Your task to perform on an android device: Empty the shopping cart on bestbuy. Search for "asus zenbook" on bestbuy, select the first entry, add it to the cart, then select checkout. Image 0: 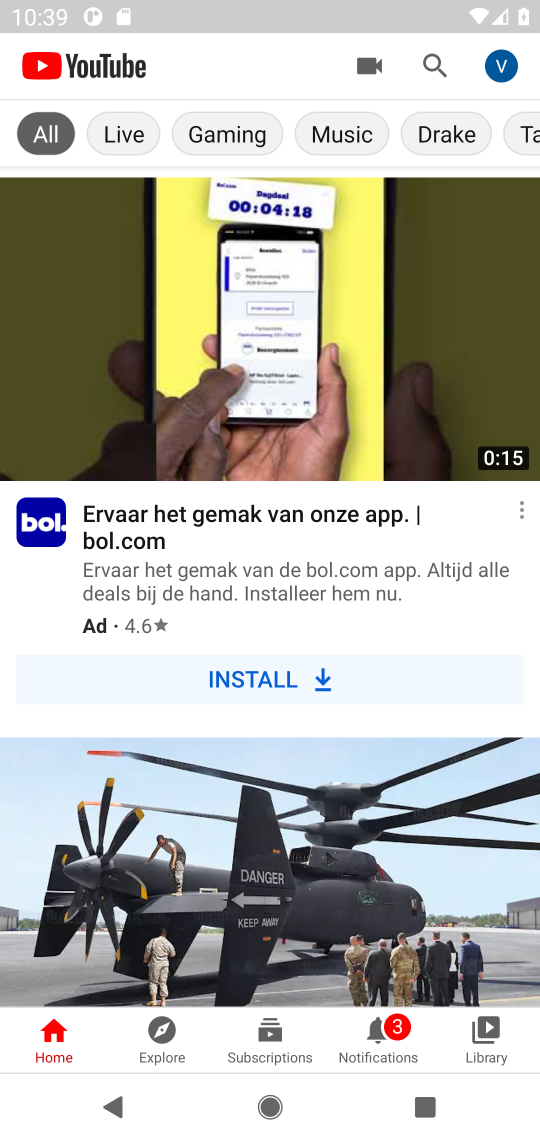
Step 0: press home button
Your task to perform on an android device: Empty the shopping cart on bestbuy. Search for "asus zenbook" on bestbuy, select the first entry, add it to the cart, then select checkout. Image 1: 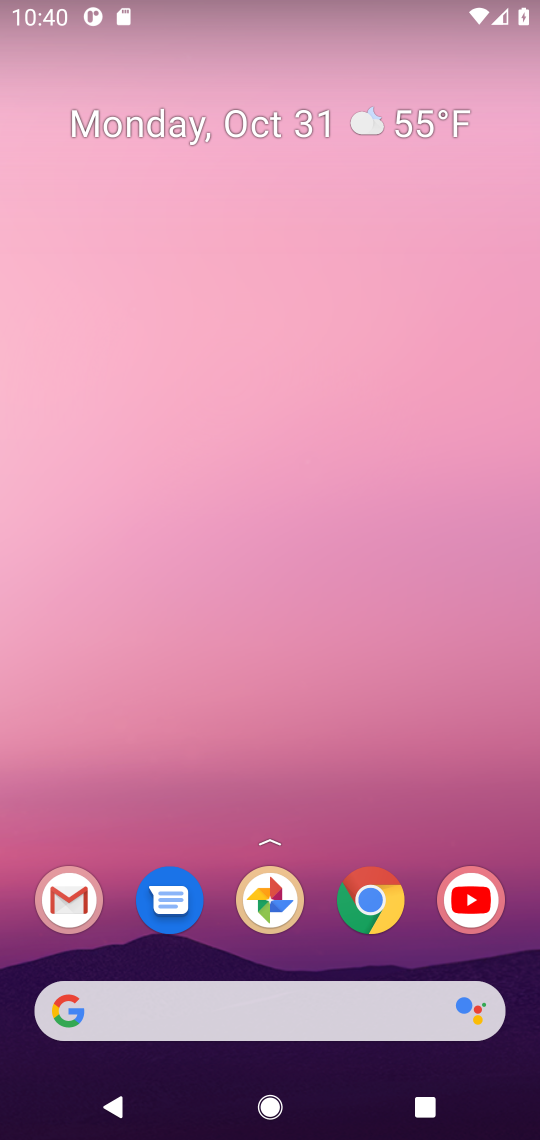
Step 1: click (365, 905)
Your task to perform on an android device: Empty the shopping cart on bestbuy. Search for "asus zenbook" on bestbuy, select the first entry, add it to the cart, then select checkout. Image 2: 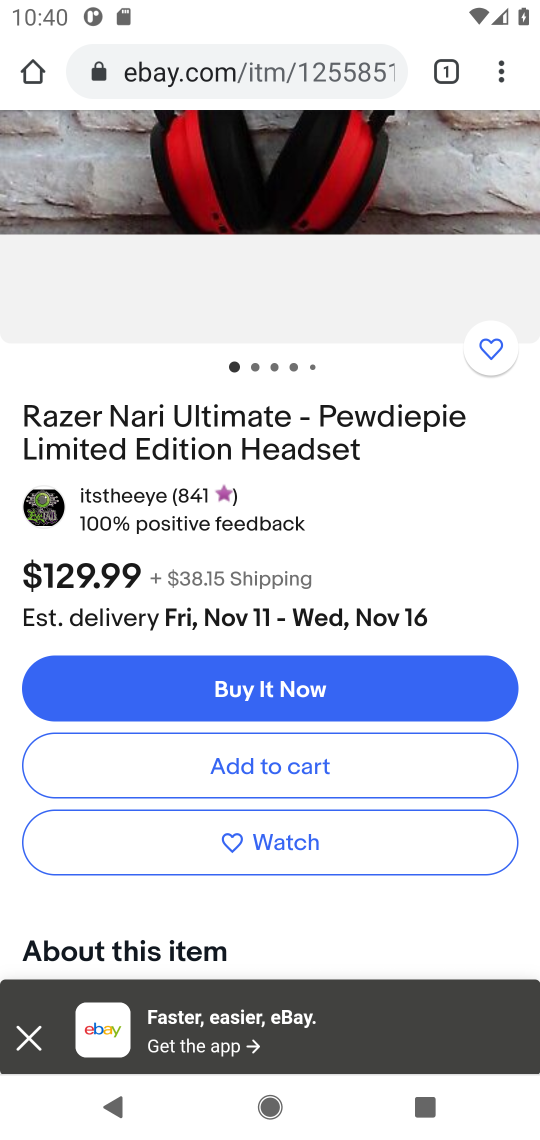
Step 2: click (227, 86)
Your task to perform on an android device: Empty the shopping cart on bestbuy. Search for "asus zenbook" on bestbuy, select the first entry, add it to the cart, then select checkout. Image 3: 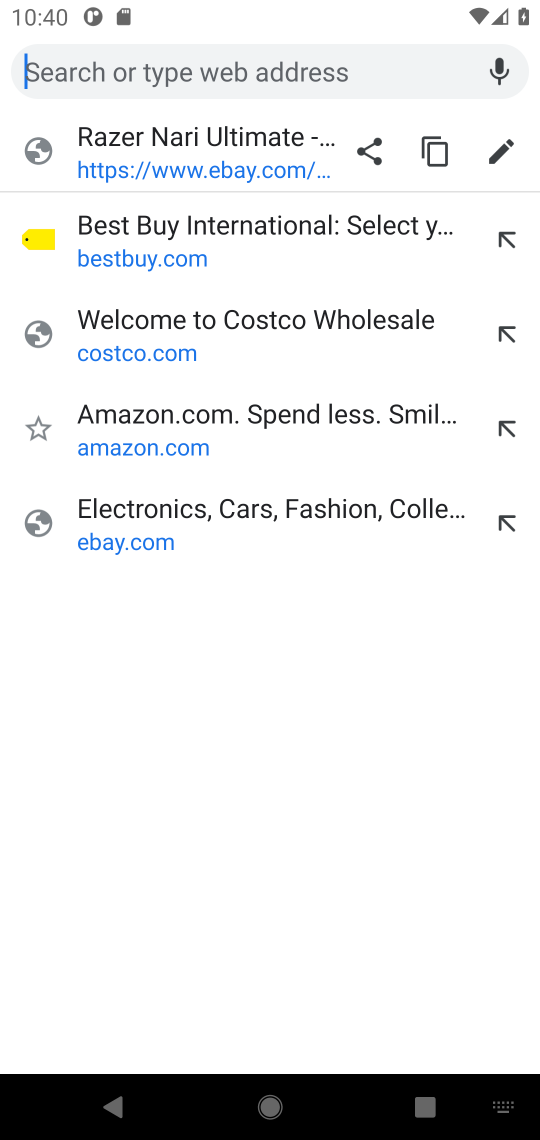
Step 3: click (86, 258)
Your task to perform on an android device: Empty the shopping cart on bestbuy. Search for "asus zenbook" on bestbuy, select the first entry, add it to the cart, then select checkout. Image 4: 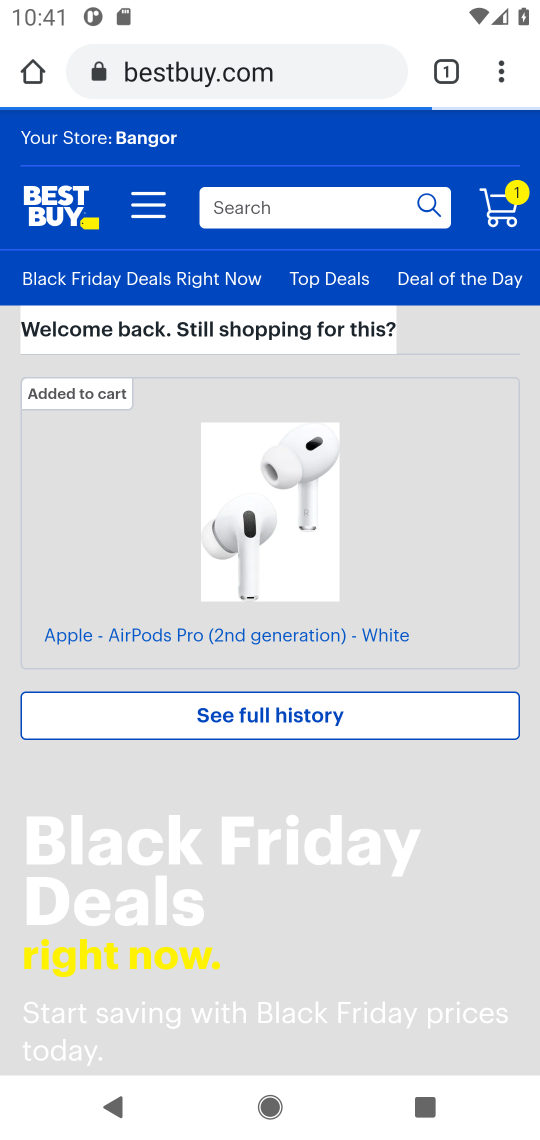
Step 4: click (495, 205)
Your task to perform on an android device: Empty the shopping cart on bestbuy. Search for "asus zenbook" on bestbuy, select the first entry, add it to the cart, then select checkout. Image 5: 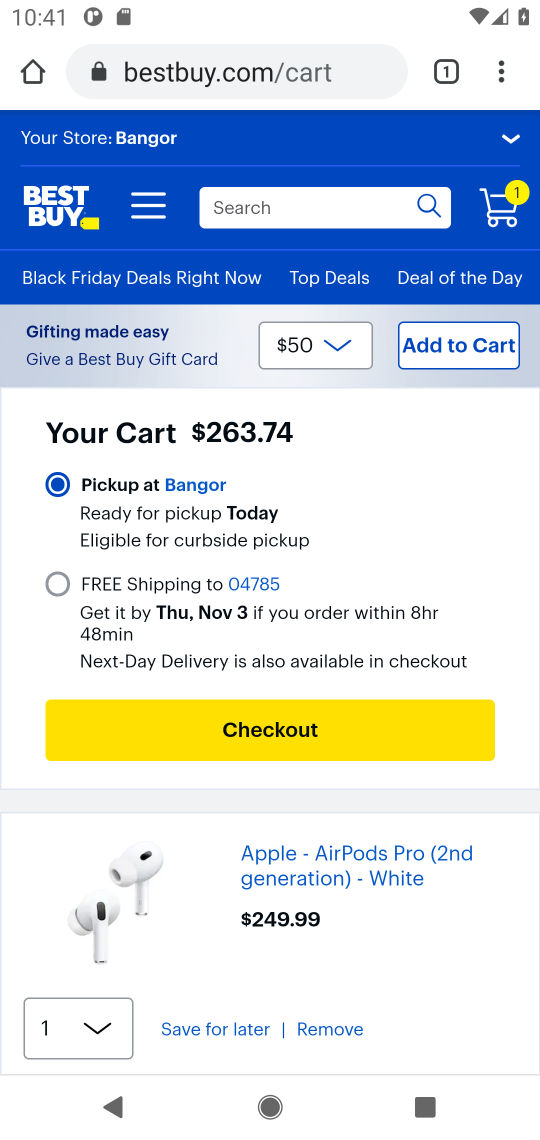
Step 5: drag from (231, 656) to (284, 436)
Your task to perform on an android device: Empty the shopping cart on bestbuy. Search for "asus zenbook" on bestbuy, select the first entry, add it to the cart, then select checkout. Image 6: 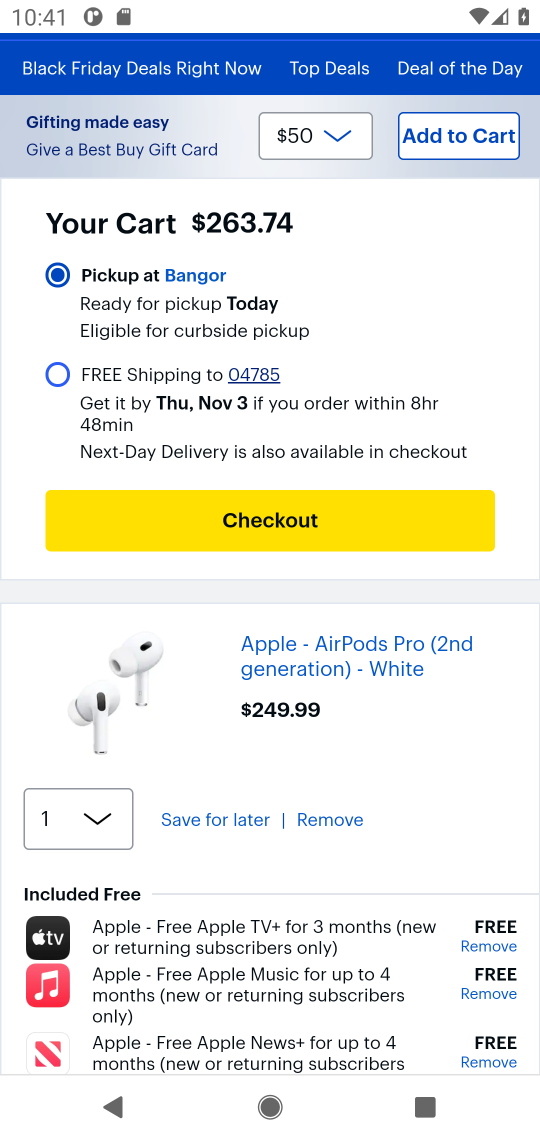
Step 6: click (317, 818)
Your task to perform on an android device: Empty the shopping cart on bestbuy. Search for "asus zenbook" on bestbuy, select the first entry, add it to the cart, then select checkout. Image 7: 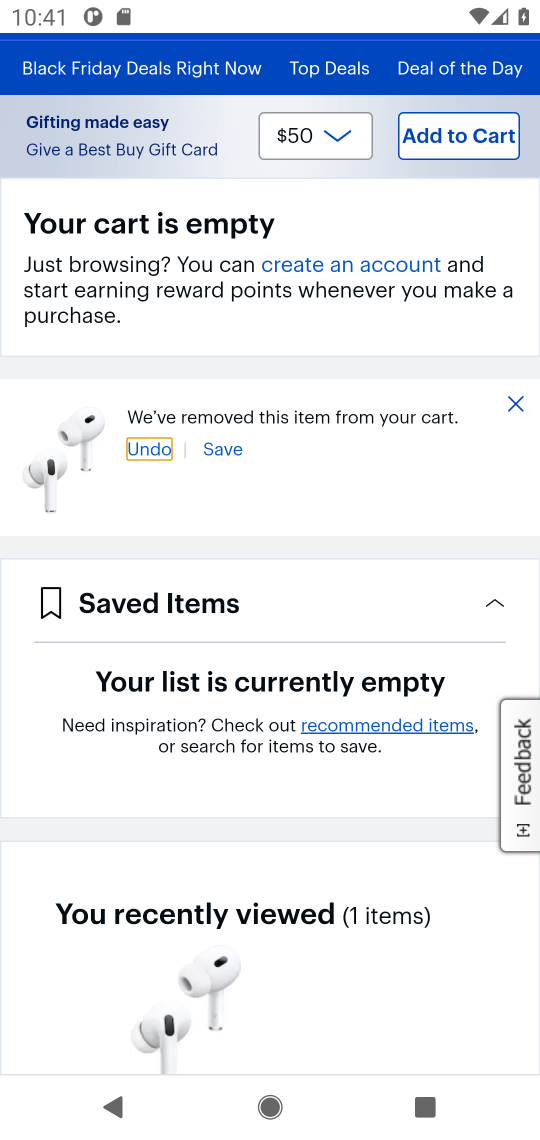
Step 7: drag from (308, 230) to (318, 812)
Your task to perform on an android device: Empty the shopping cart on bestbuy. Search for "asus zenbook" on bestbuy, select the first entry, add it to the cart, then select checkout. Image 8: 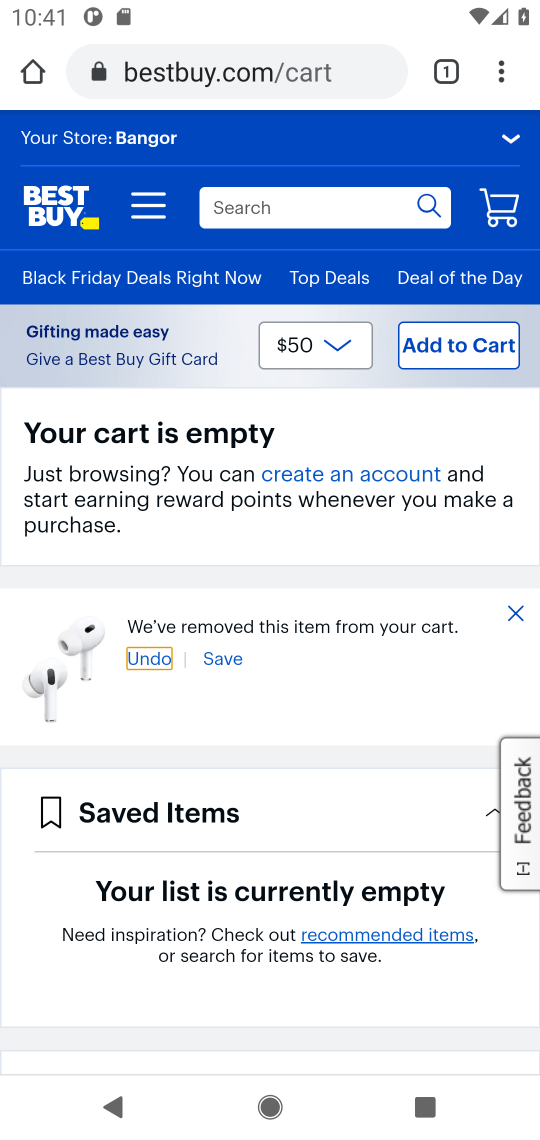
Step 8: click (287, 203)
Your task to perform on an android device: Empty the shopping cart on bestbuy. Search for "asus zenbook" on bestbuy, select the first entry, add it to the cart, then select checkout. Image 9: 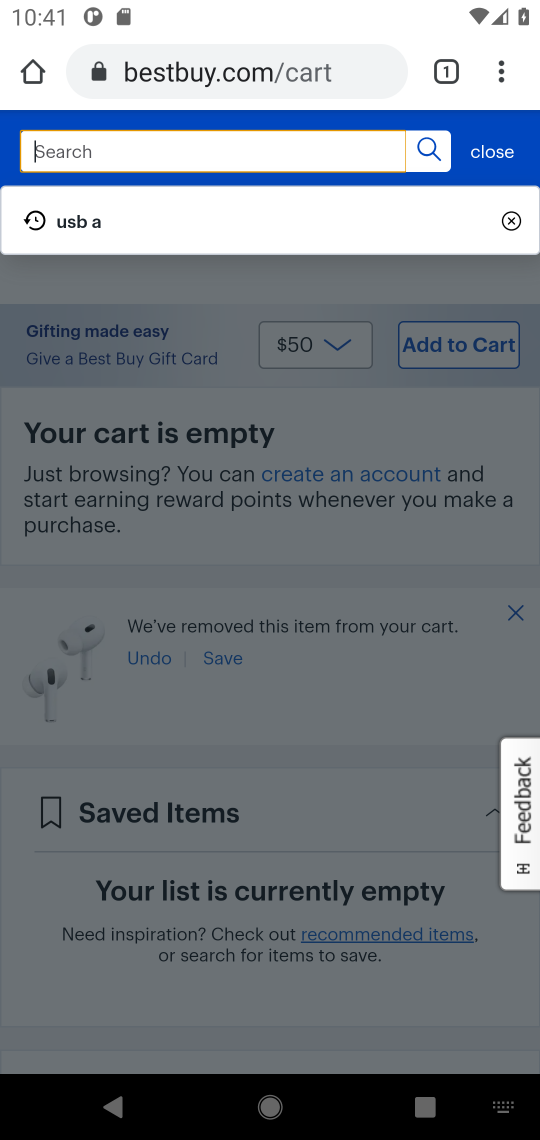
Step 9: type "asus zenbook"
Your task to perform on an android device: Empty the shopping cart on bestbuy. Search for "asus zenbook" on bestbuy, select the first entry, add it to the cart, then select checkout. Image 10: 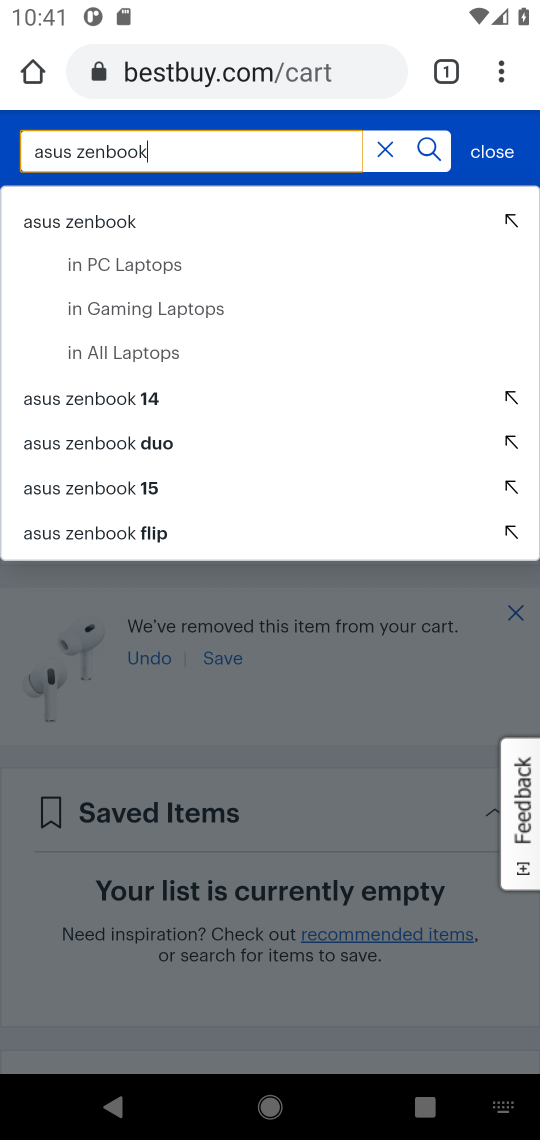
Step 10: click (68, 226)
Your task to perform on an android device: Empty the shopping cart on bestbuy. Search for "asus zenbook" on bestbuy, select the first entry, add it to the cart, then select checkout. Image 11: 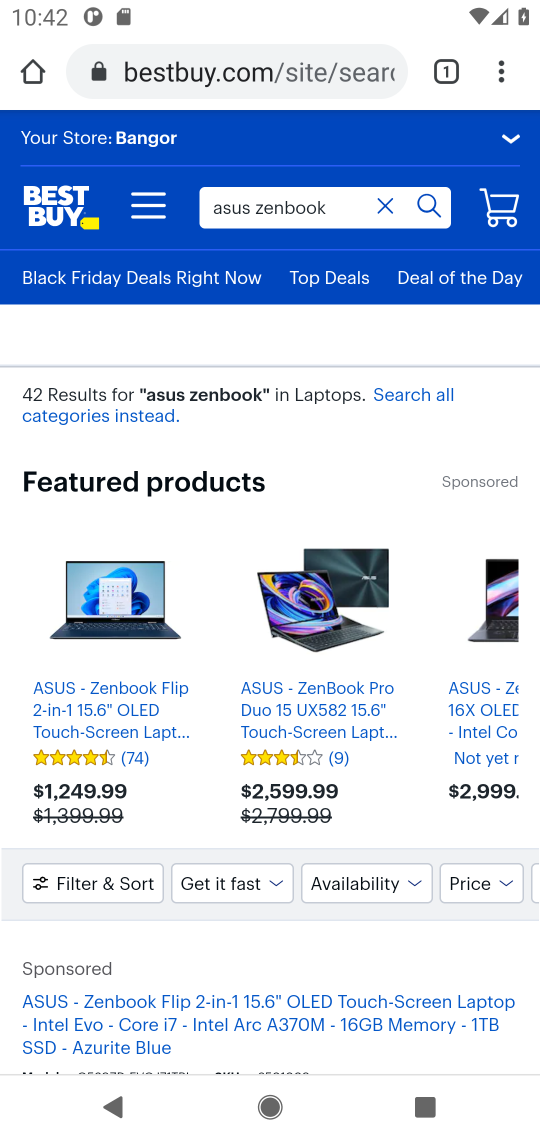
Step 11: click (118, 684)
Your task to perform on an android device: Empty the shopping cart on bestbuy. Search for "asus zenbook" on bestbuy, select the first entry, add it to the cart, then select checkout. Image 12: 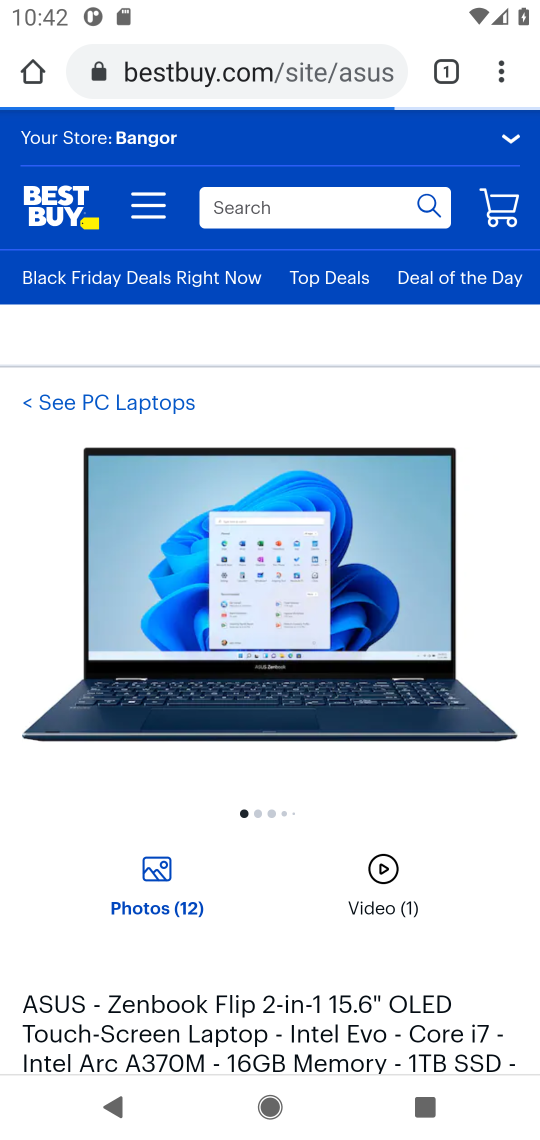
Step 12: drag from (231, 809) to (243, 409)
Your task to perform on an android device: Empty the shopping cart on bestbuy. Search for "asus zenbook" on bestbuy, select the first entry, add it to the cart, then select checkout. Image 13: 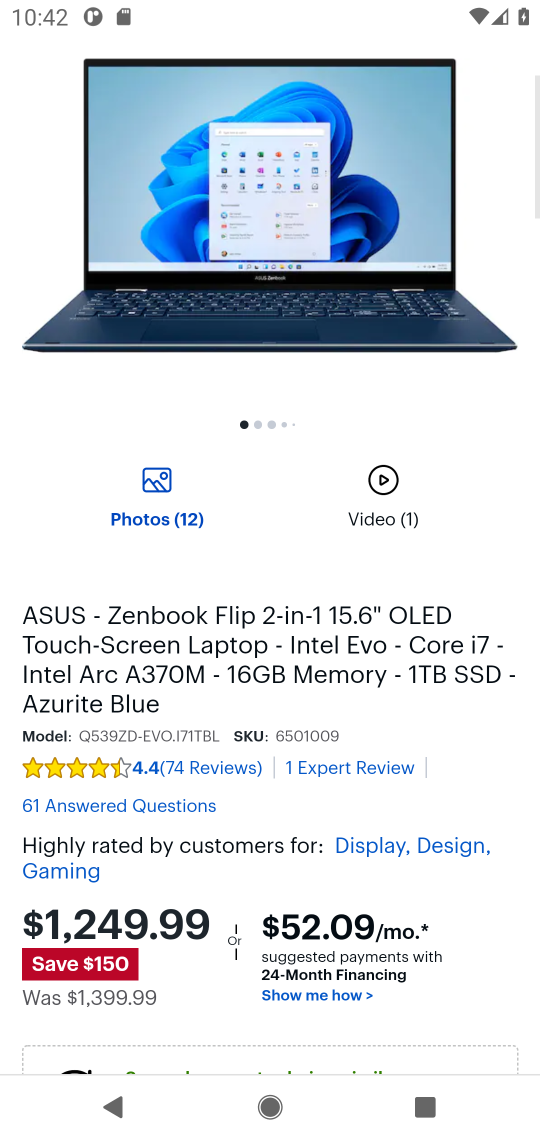
Step 13: drag from (199, 807) to (231, 354)
Your task to perform on an android device: Empty the shopping cart on bestbuy. Search for "asus zenbook" on bestbuy, select the first entry, add it to the cart, then select checkout. Image 14: 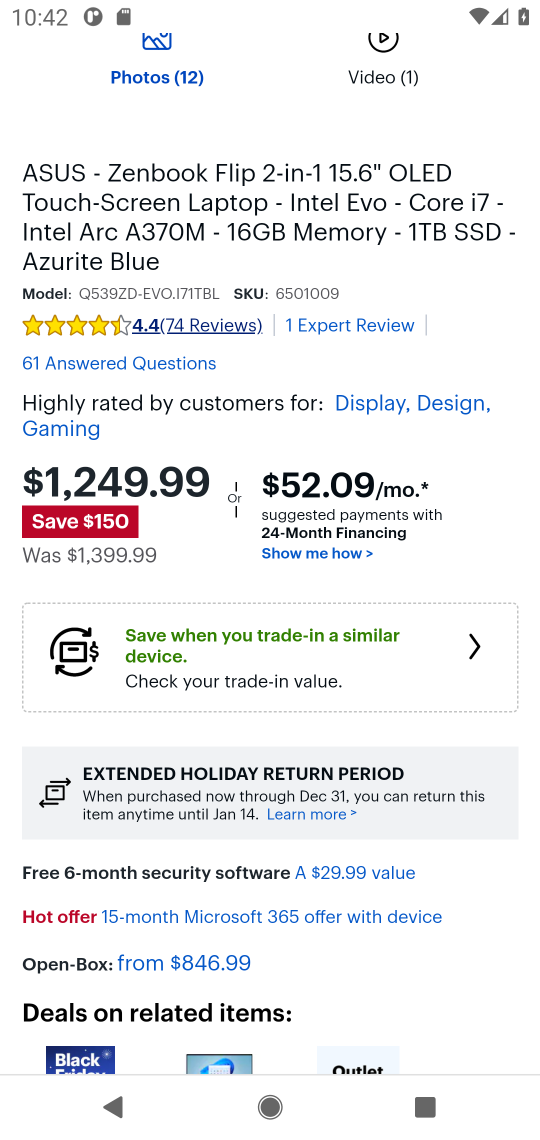
Step 14: drag from (197, 846) to (223, 387)
Your task to perform on an android device: Empty the shopping cart on bestbuy. Search for "asus zenbook" on bestbuy, select the first entry, add it to the cart, then select checkout. Image 15: 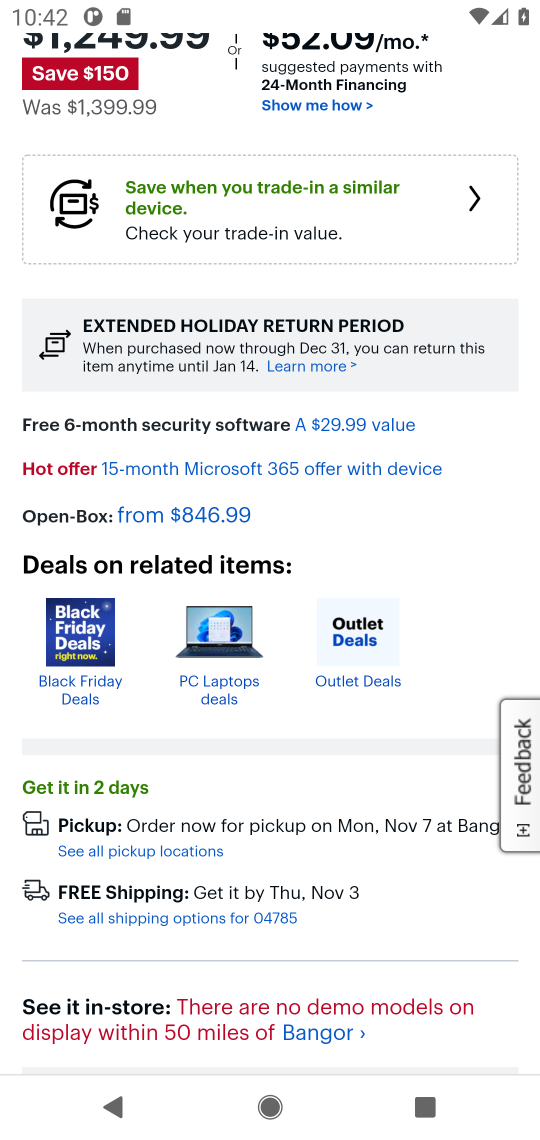
Step 15: drag from (223, 788) to (240, 407)
Your task to perform on an android device: Empty the shopping cart on bestbuy. Search for "asus zenbook" on bestbuy, select the first entry, add it to the cart, then select checkout. Image 16: 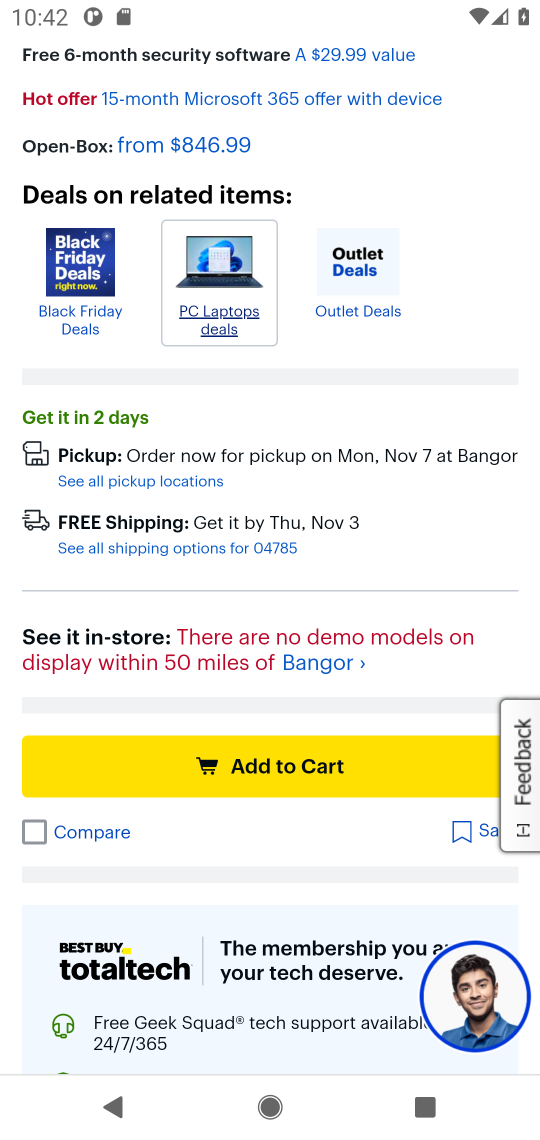
Step 16: click (245, 768)
Your task to perform on an android device: Empty the shopping cart on bestbuy. Search for "asus zenbook" on bestbuy, select the first entry, add it to the cart, then select checkout. Image 17: 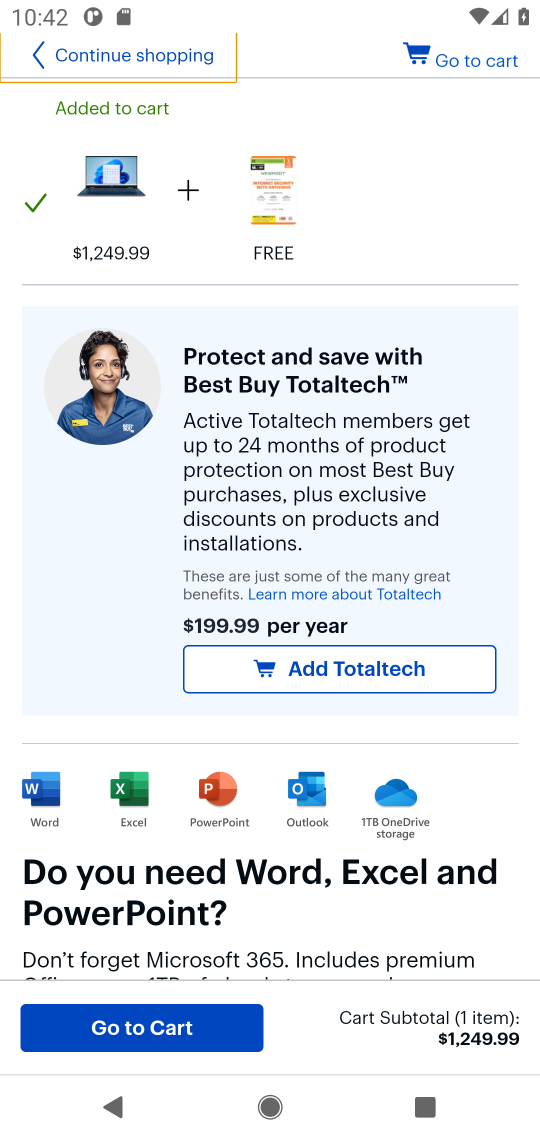
Step 17: click (474, 62)
Your task to perform on an android device: Empty the shopping cart on bestbuy. Search for "asus zenbook" on bestbuy, select the first entry, add it to the cart, then select checkout. Image 18: 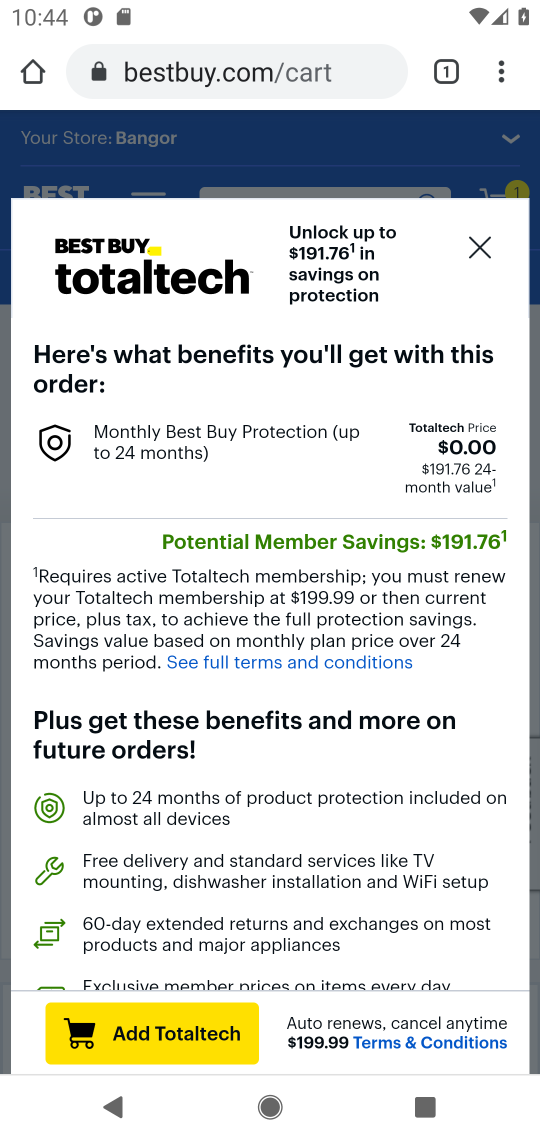
Step 18: drag from (237, 757) to (239, 388)
Your task to perform on an android device: Empty the shopping cart on bestbuy. Search for "asus zenbook" on bestbuy, select the first entry, add it to the cart, then select checkout. Image 19: 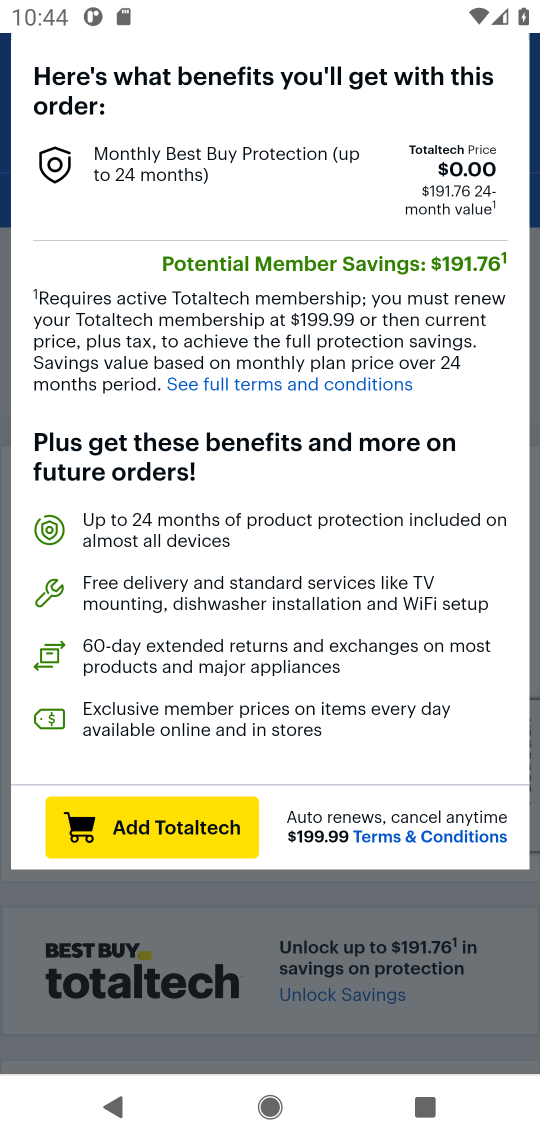
Step 19: drag from (234, 856) to (260, 421)
Your task to perform on an android device: Empty the shopping cart on bestbuy. Search for "asus zenbook" on bestbuy, select the first entry, add it to the cart, then select checkout. Image 20: 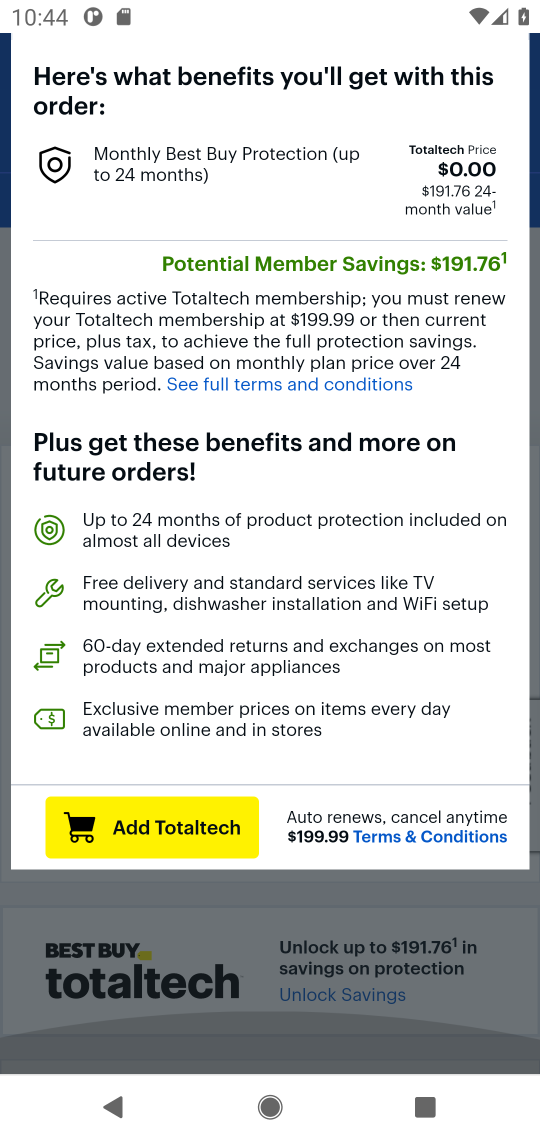
Step 20: drag from (253, 305) to (292, 1057)
Your task to perform on an android device: Empty the shopping cart on bestbuy. Search for "asus zenbook" on bestbuy, select the first entry, add it to the cart, then select checkout. Image 21: 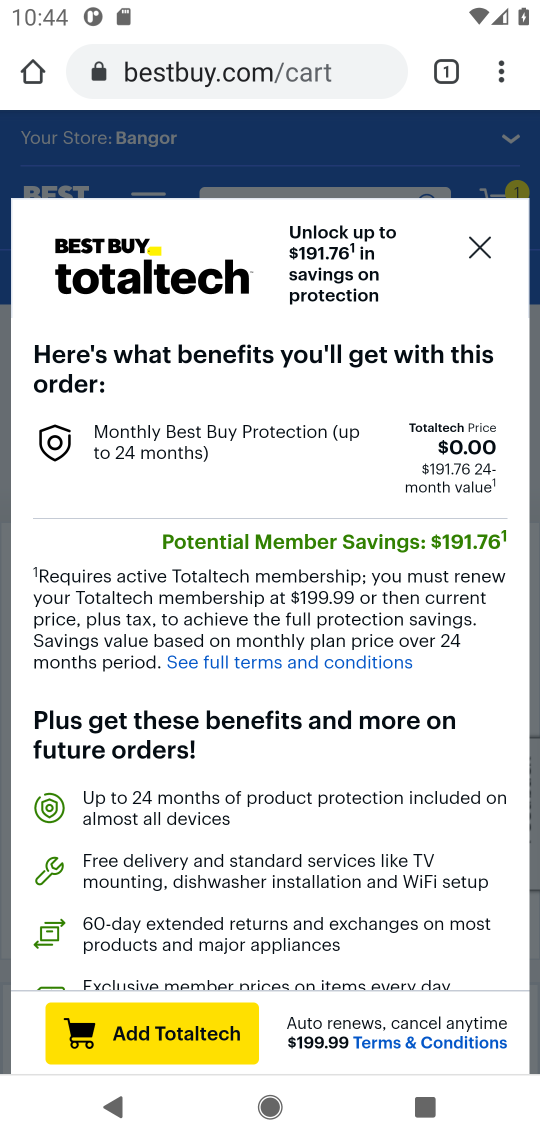
Step 21: click (475, 258)
Your task to perform on an android device: Empty the shopping cart on bestbuy. Search for "asus zenbook" on bestbuy, select the first entry, add it to the cart, then select checkout. Image 22: 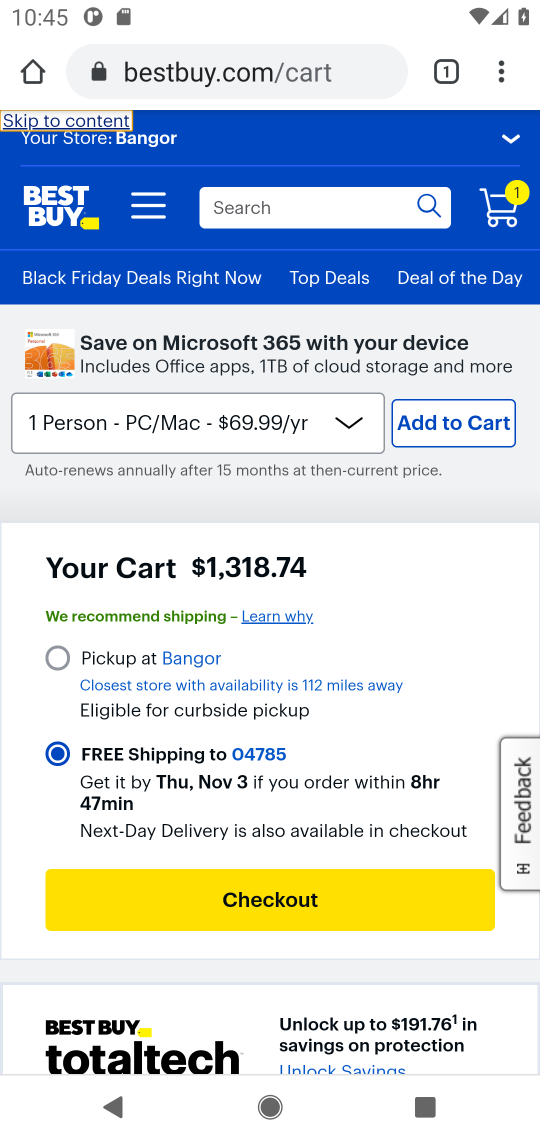
Step 22: click (181, 921)
Your task to perform on an android device: Empty the shopping cart on bestbuy. Search for "asus zenbook" on bestbuy, select the first entry, add it to the cart, then select checkout. Image 23: 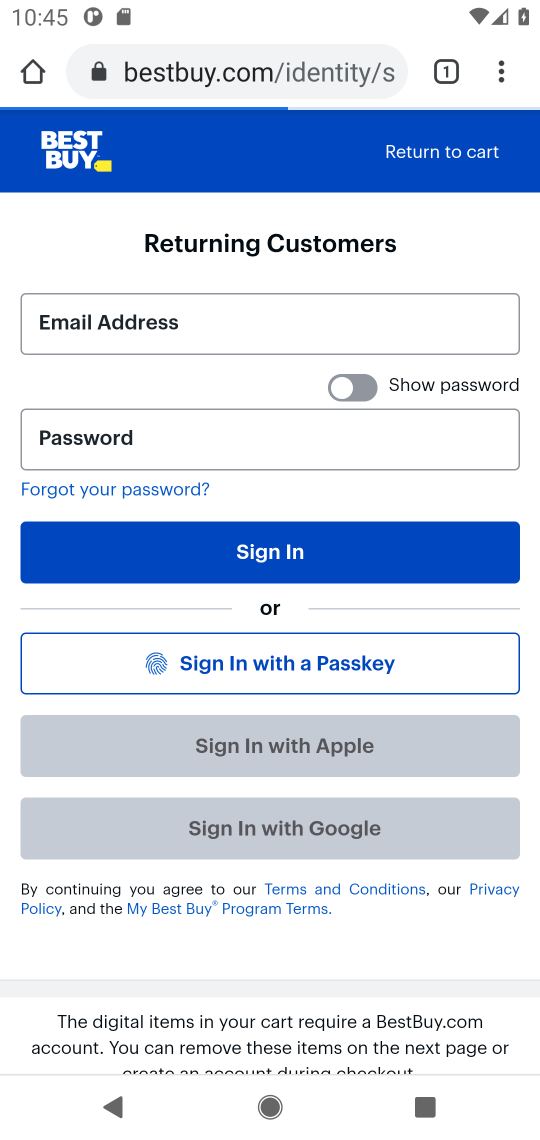
Step 23: task complete